Your task to perform on an android device: Search for the new Nintendo switch on Best Buy Image 0: 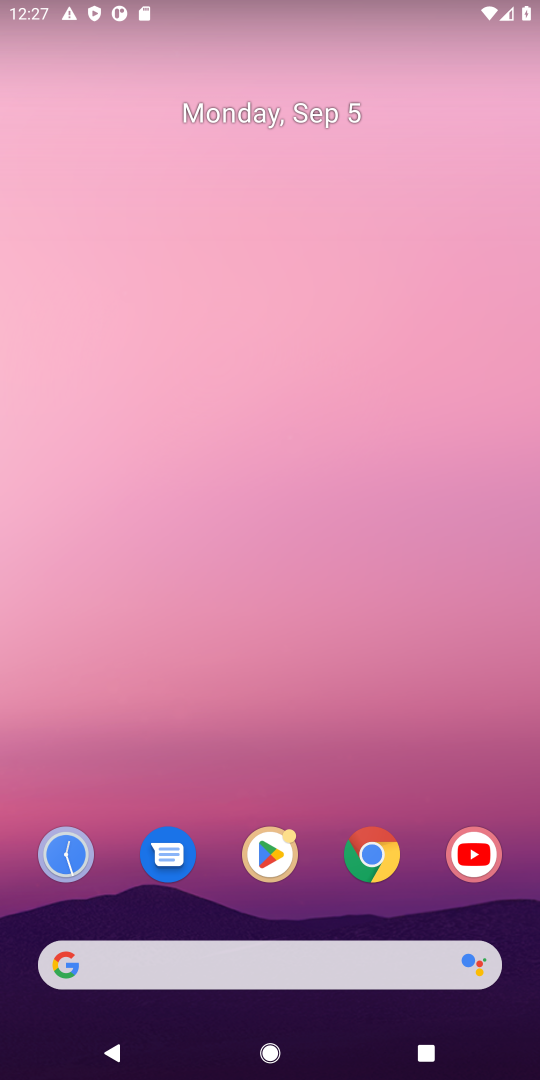
Step 0: press home button
Your task to perform on an android device: Search for the new Nintendo switch on Best Buy Image 1: 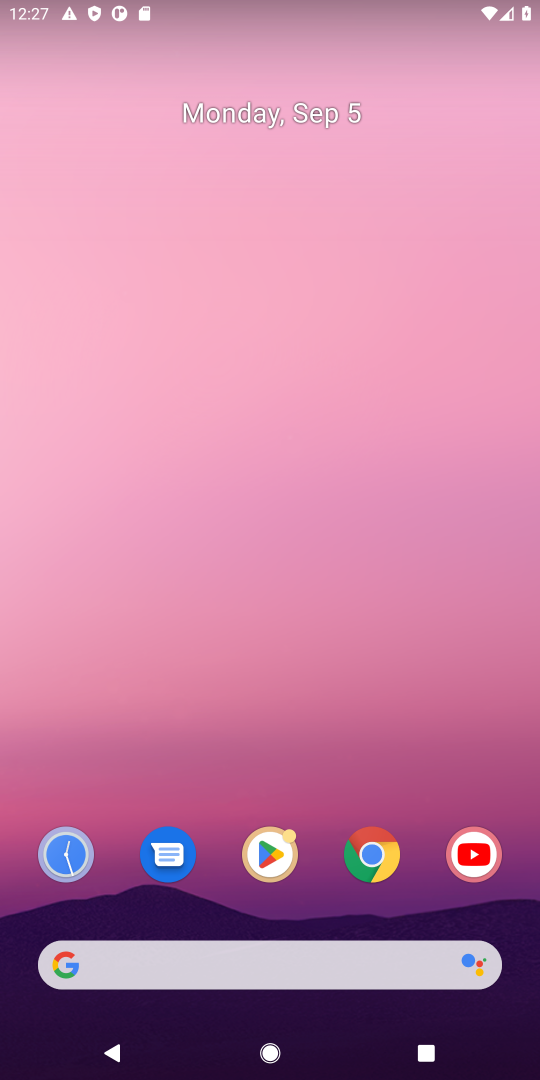
Step 1: click (273, 956)
Your task to perform on an android device: Search for the new Nintendo switch on Best Buy Image 2: 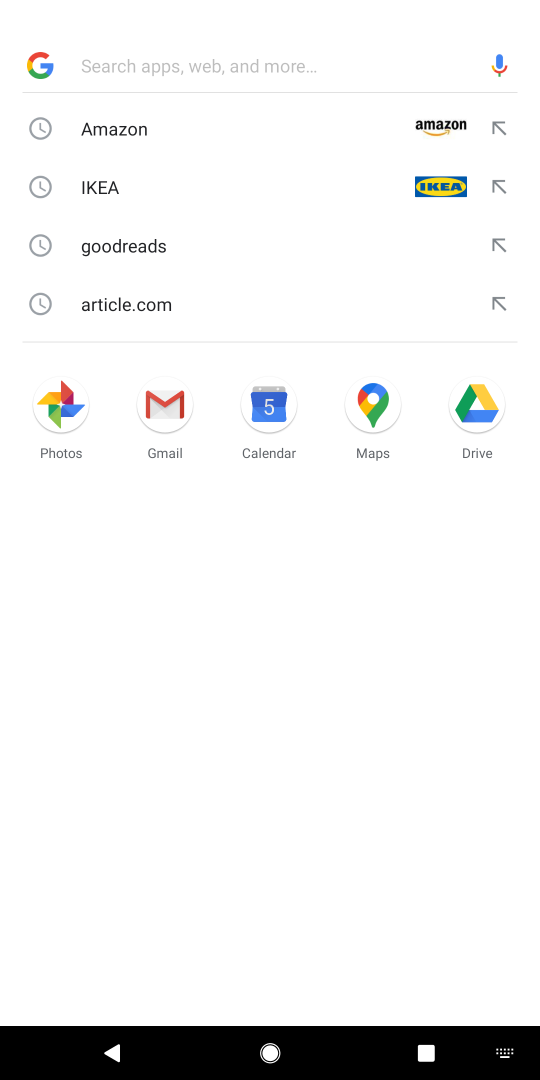
Step 2: type "best buy "
Your task to perform on an android device: Search for the new Nintendo switch on Best Buy Image 3: 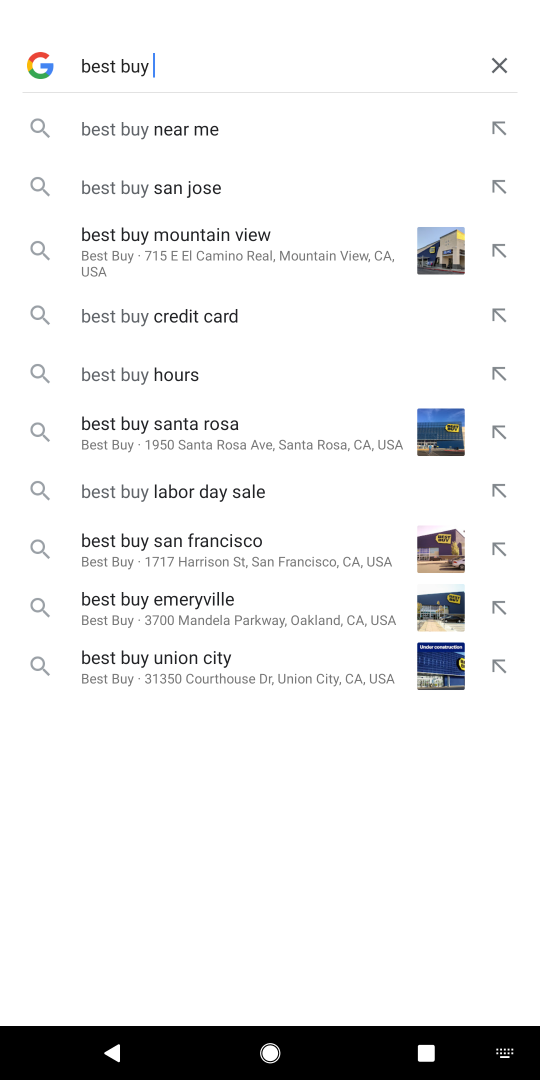
Step 3: press enter
Your task to perform on an android device: Search for the new Nintendo switch on Best Buy Image 4: 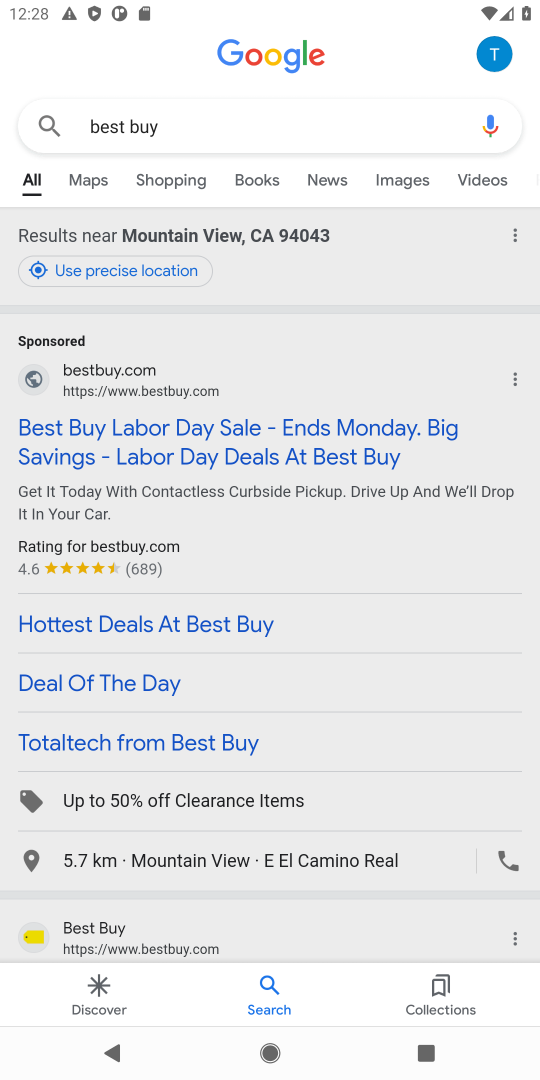
Step 4: click (133, 444)
Your task to perform on an android device: Search for the new Nintendo switch on Best Buy Image 5: 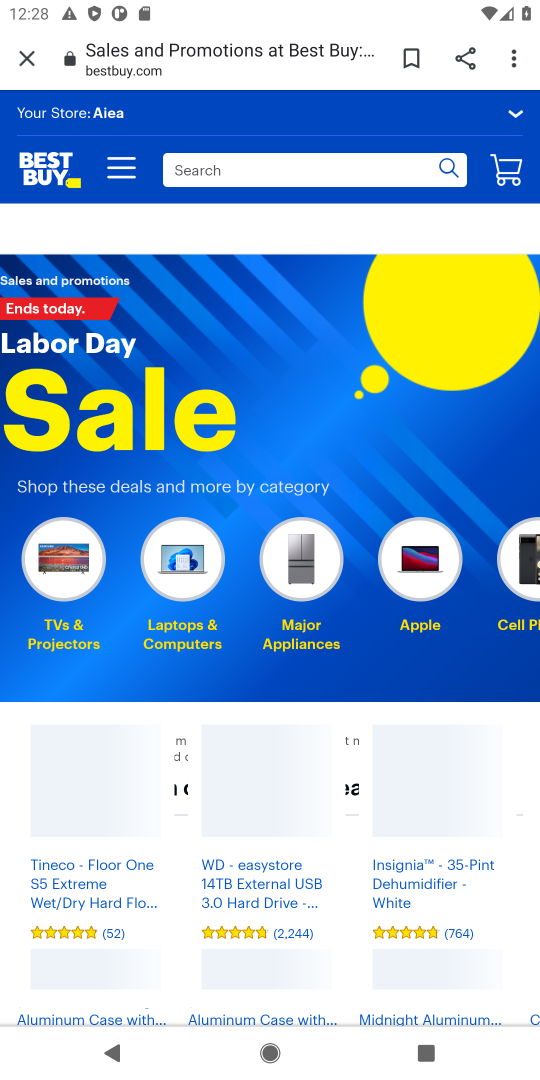
Step 5: click (248, 157)
Your task to perform on an android device: Search for the new Nintendo switch on Best Buy Image 6: 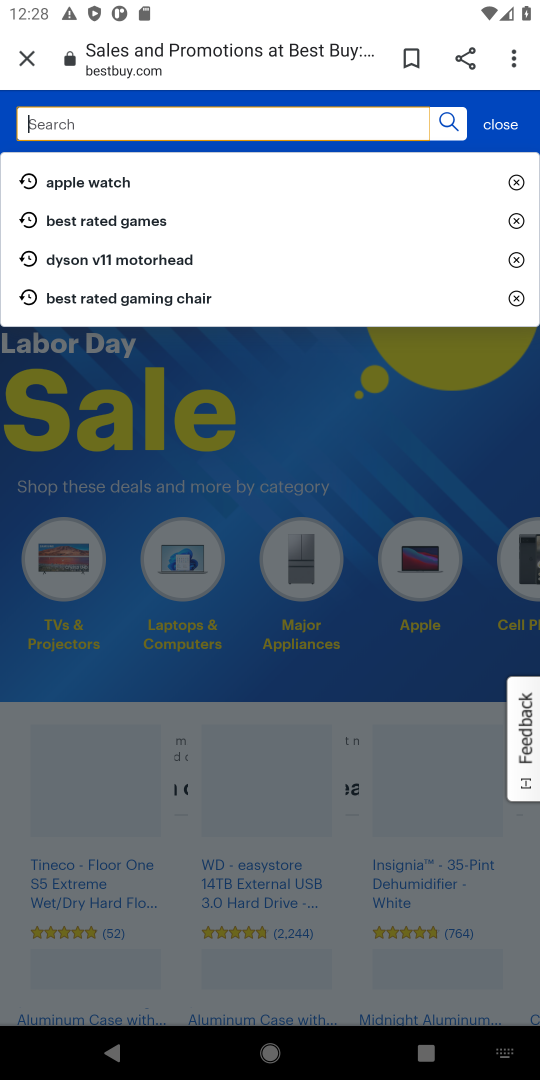
Step 6: type "nintendo switch"
Your task to perform on an android device: Search for the new Nintendo switch on Best Buy Image 7: 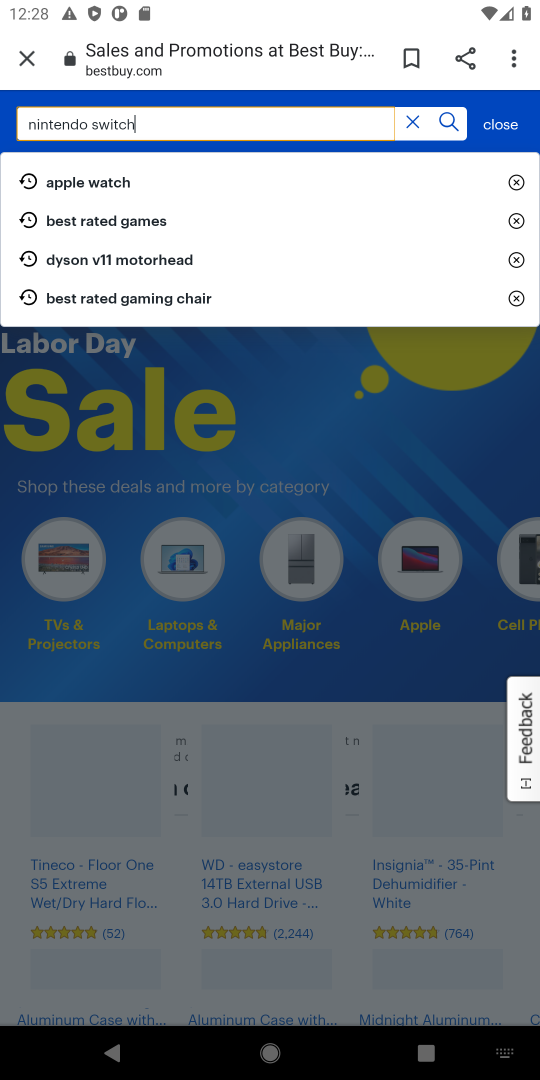
Step 7: press enter
Your task to perform on an android device: Search for the new Nintendo switch on Best Buy Image 8: 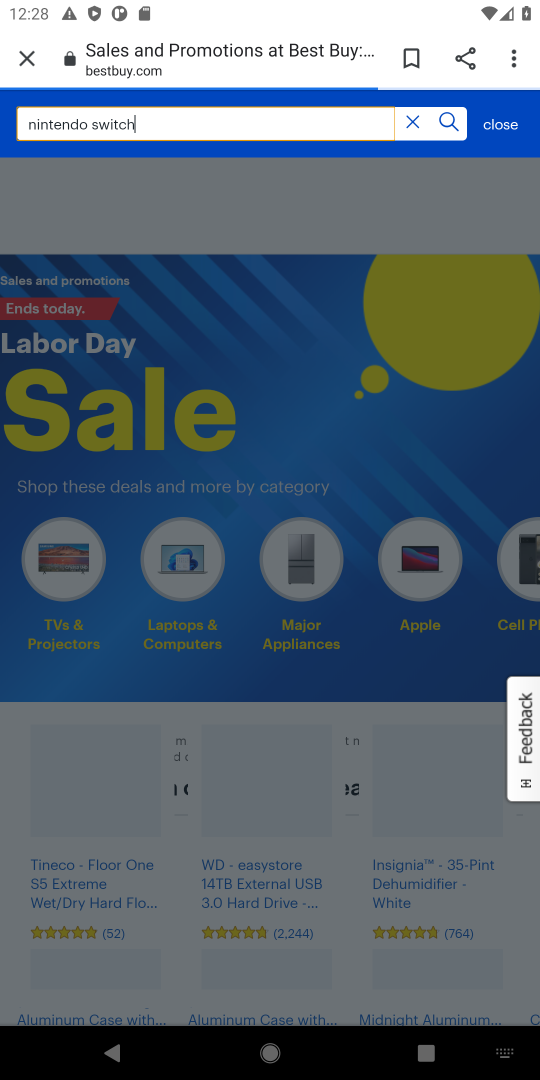
Step 8: click (453, 117)
Your task to perform on an android device: Search for the new Nintendo switch on Best Buy Image 9: 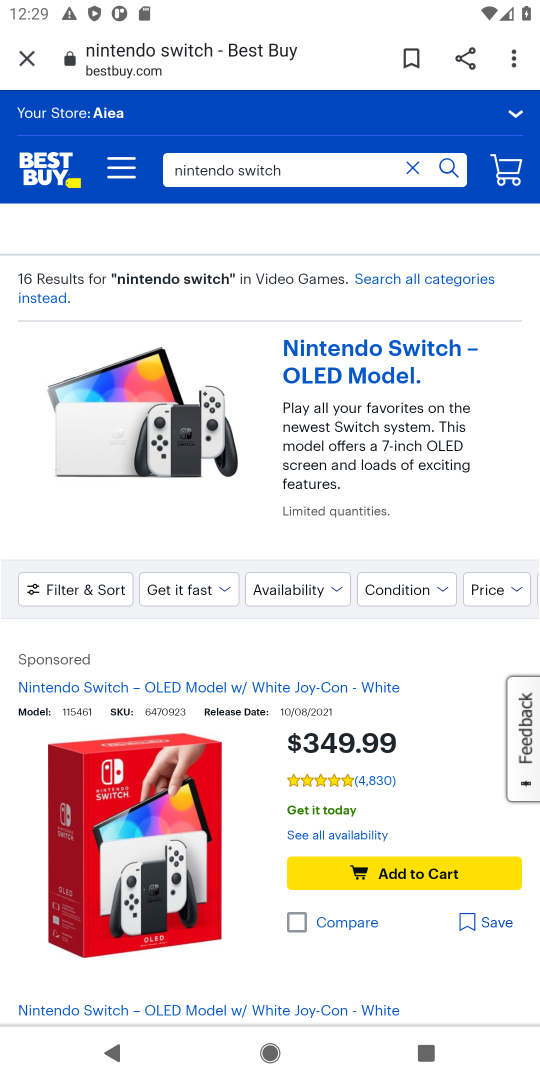
Step 9: task complete